Your task to perform on an android device: open app "Chime – Mobile Banking" Image 0: 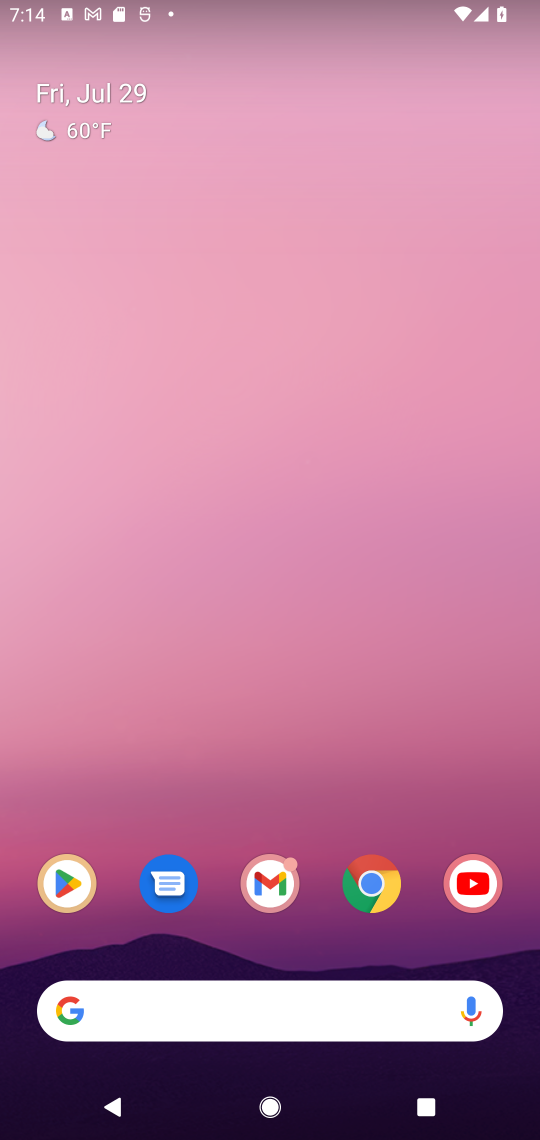
Step 0: click (80, 879)
Your task to perform on an android device: open app "Chime – Mobile Banking" Image 1: 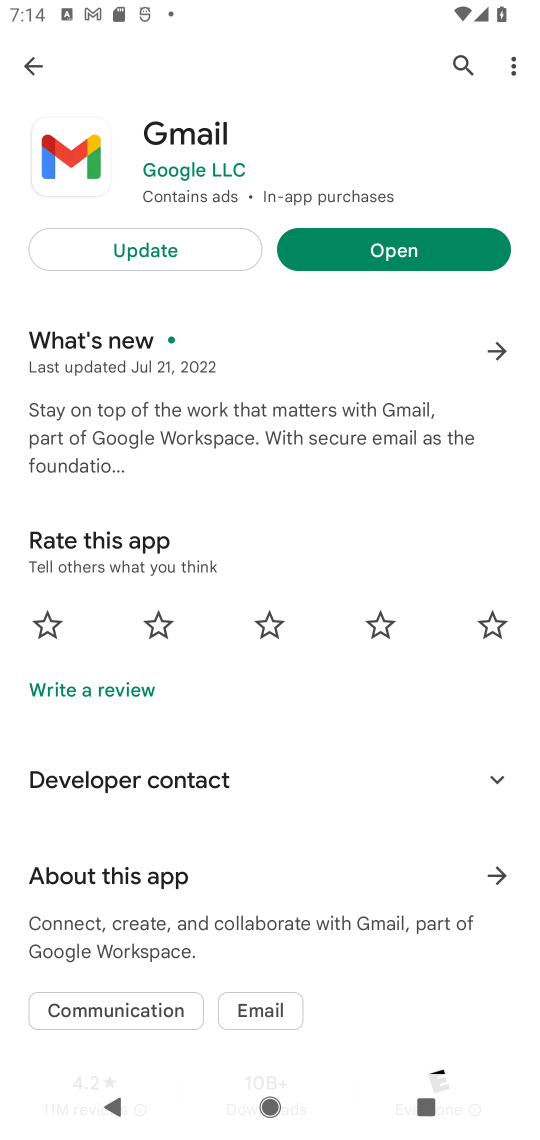
Step 1: click (454, 59)
Your task to perform on an android device: open app "Chime – Mobile Banking" Image 2: 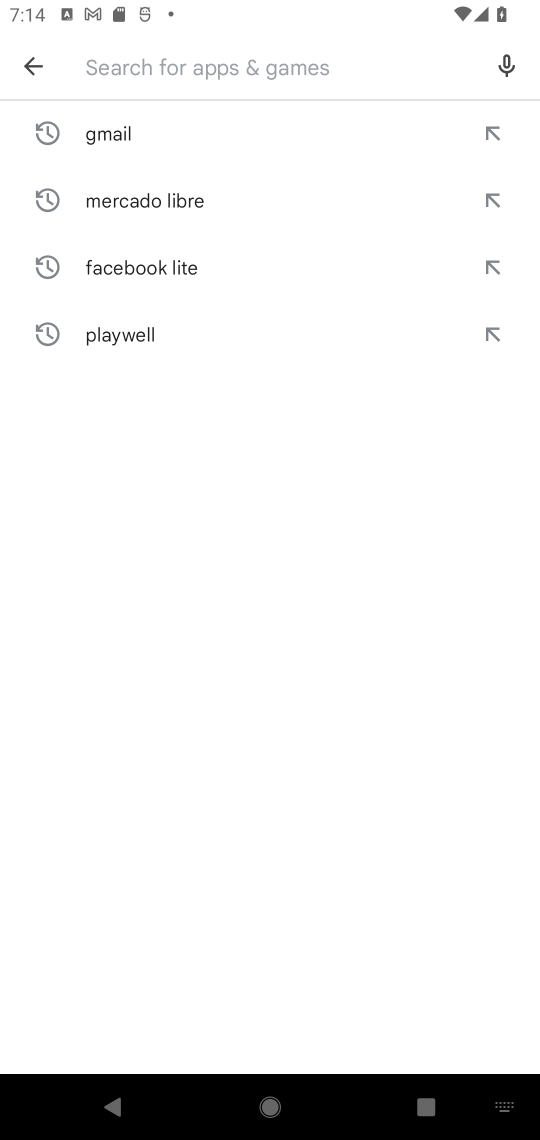
Step 2: click (146, 53)
Your task to perform on an android device: open app "Chime – Mobile Banking" Image 3: 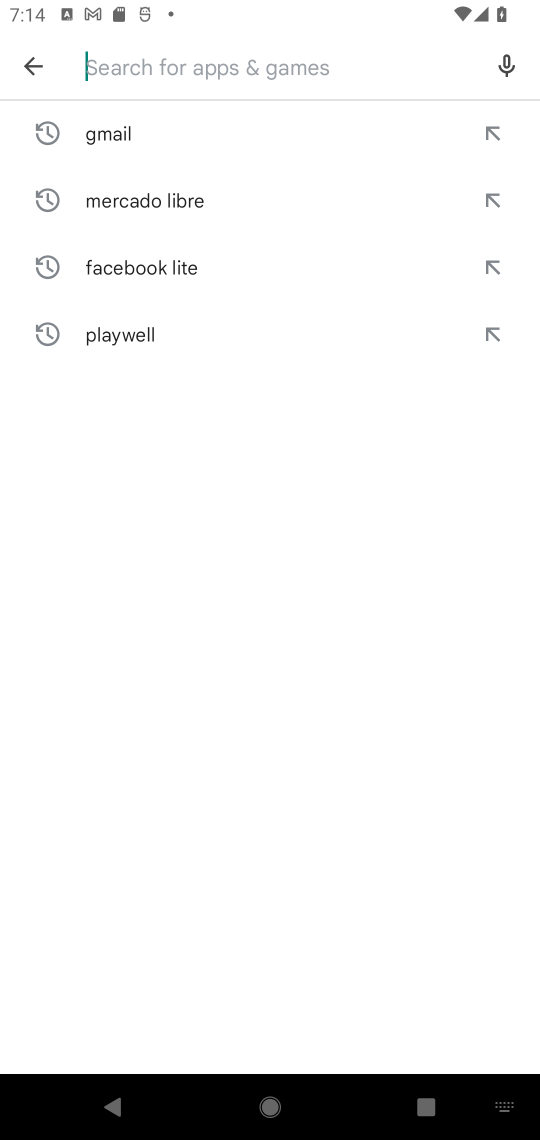
Step 3: type "chime"
Your task to perform on an android device: open app "Chime – Mobile Banking" Image 4: 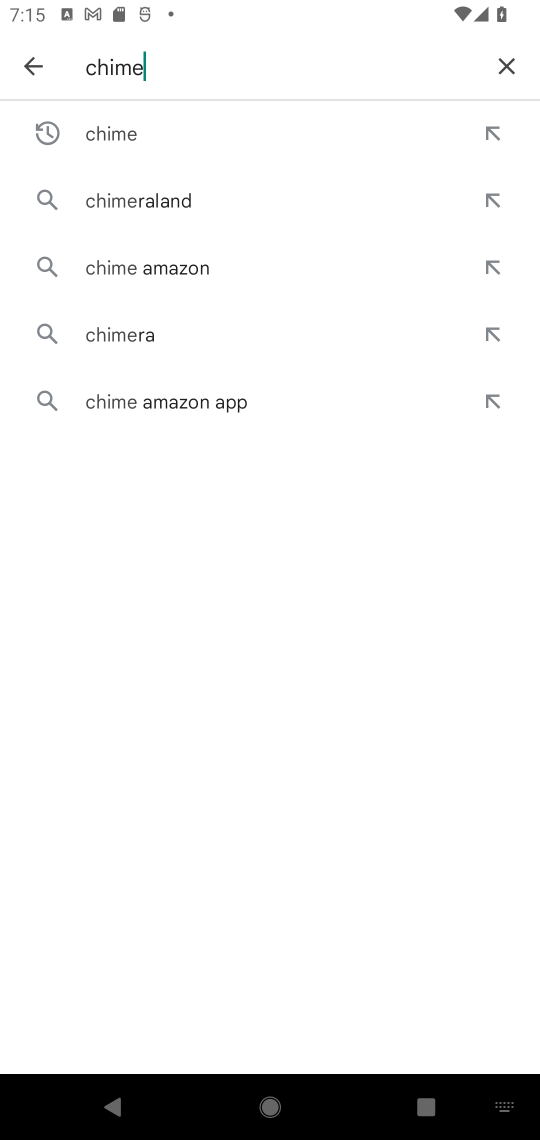
Step 4: click (149, 142)
Your task to perform on an android device: open app "Chime – Mobile Banking" Image 5: 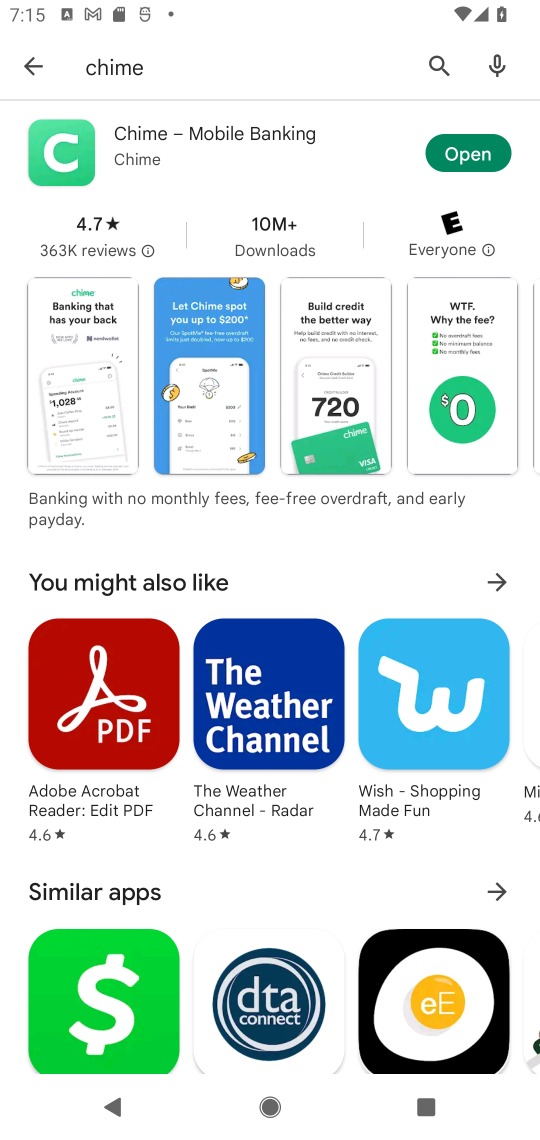
Step 5: click (441, 157)
Your task to perform on an android device: open app "Chime – Mobile Banking" Image 6: 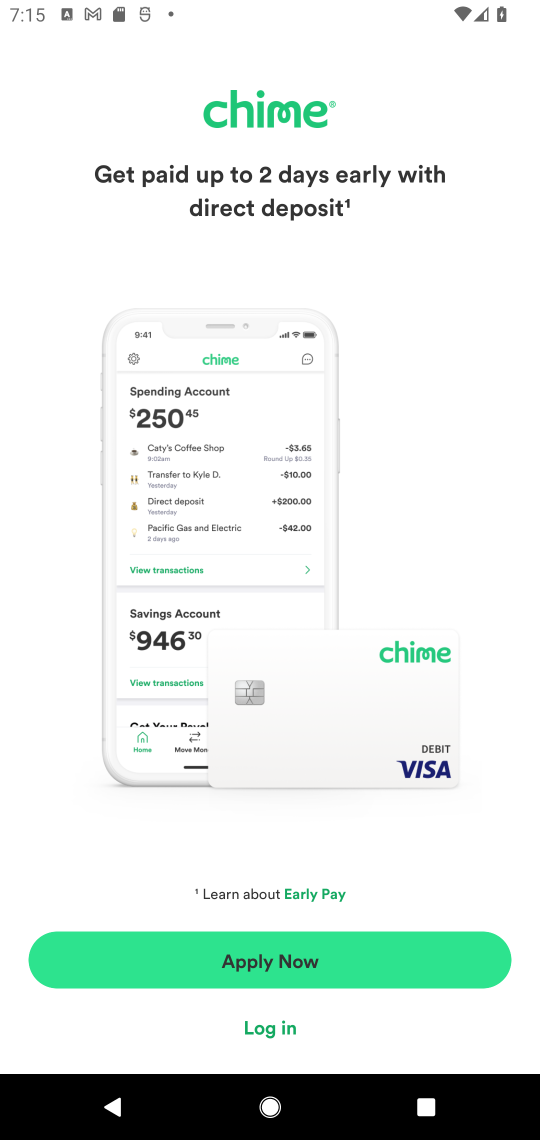
Step 6: task complete